Your task to perform on an android device: Go to battery settings Image 0: 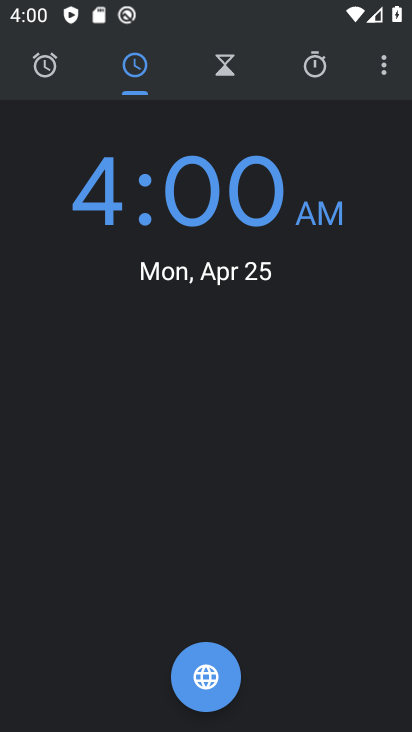
Step 0: press home button
Your task to perform on an android device: Go to battery settings Image 1: 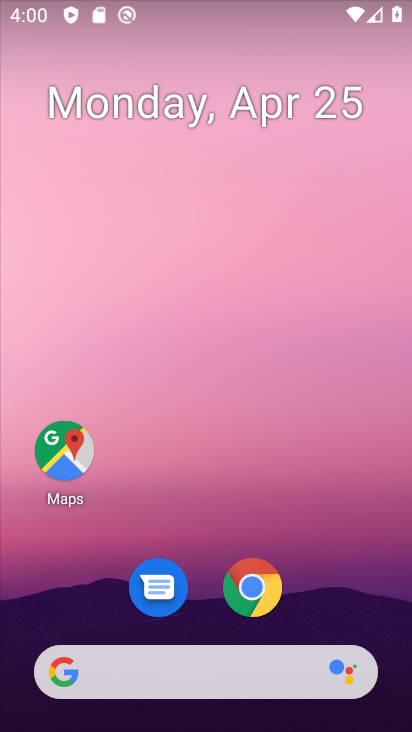
Step 1: drag from (213, 612) to (256, 142)
Your task to perform on an android device: Go to battery settings Image 2: 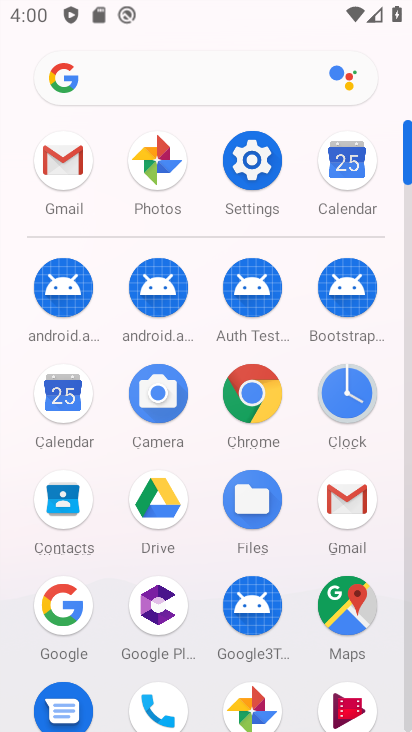
Step 2: click (246, 162)
Your task to perform on an android device: Go to battery settings Image 3: 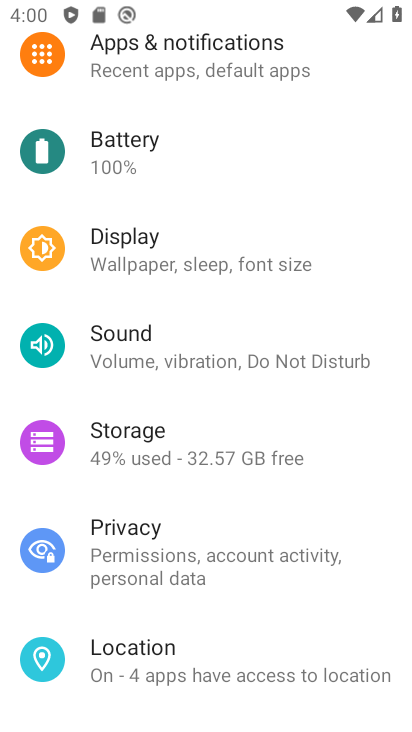
Step 3: click (152, 150)
Your task to perform on an android device: Go to battery settings Image 4: 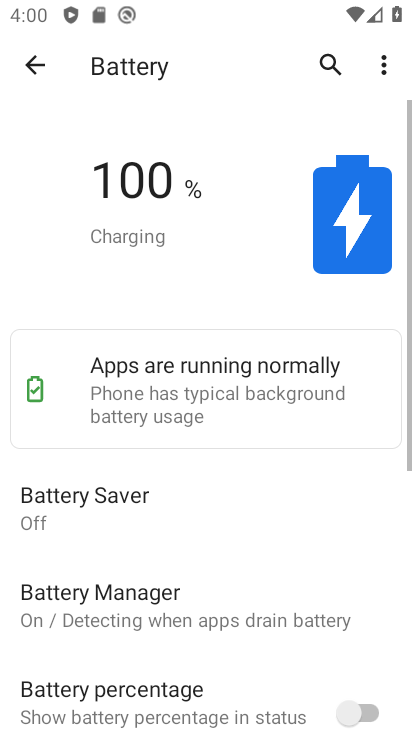
Step 4: click (376, 64)
Your task to perform on an android device: Go to battery settings Image 5: 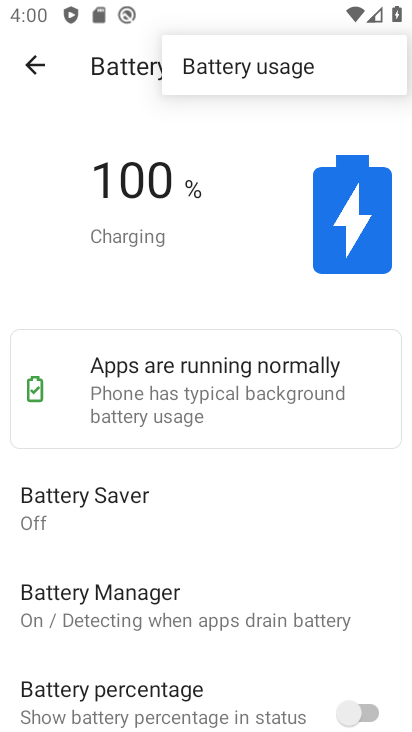
Step 5: click (182, 133)
Your task to perform on an android device: Go to battery settings Image 6: 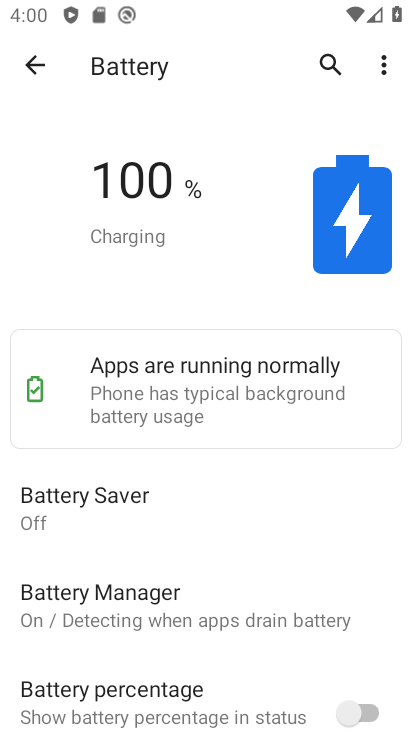
Step 6: task complete